Your task to perform on an android device: see sites visited before in the chrome app Image 0: 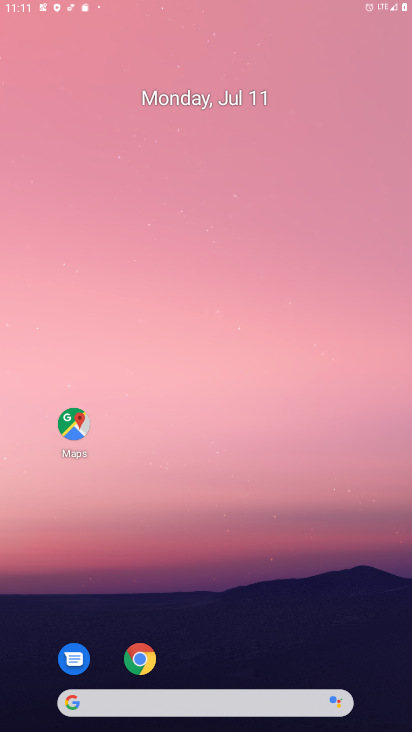
Step 0: drag from (408, 389) to (283, 306)
Your task to perform on an android device: see sites visited before in the chrome app Image 1: 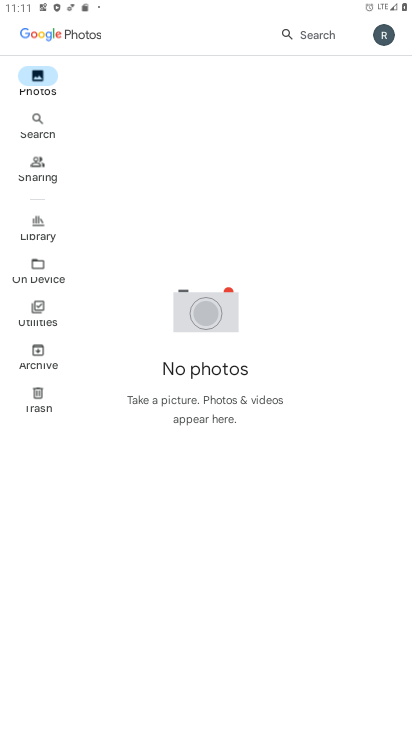
Step 1: drag from (211, 653) to (245, 459)
Your task to perform on an android device: see sites visited before in the chrome app Image 2: 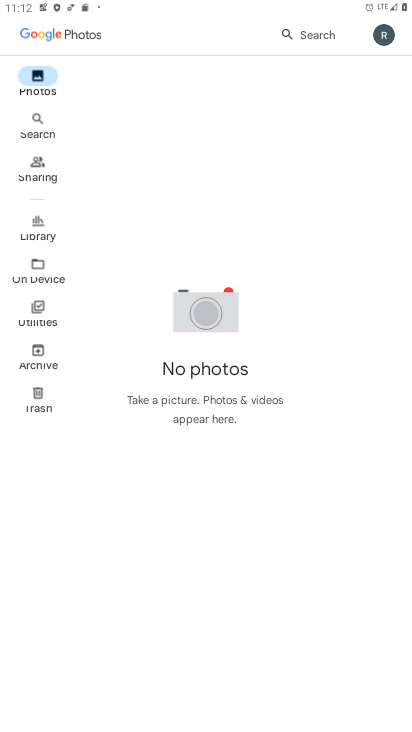
Step 2: drag from (234, 580) to (245, 386)
Your task to perform on an android device: see sites visited before in the chrome app Image 3: 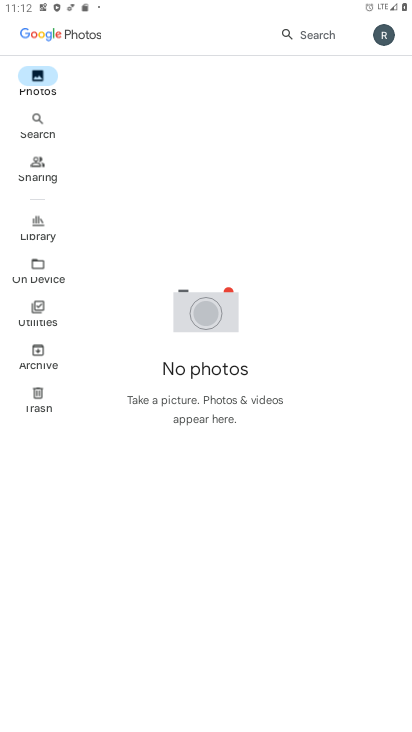
Step 3: press home button
Your task to perform on an android device: see sites visited before in the chrome app Image 4: 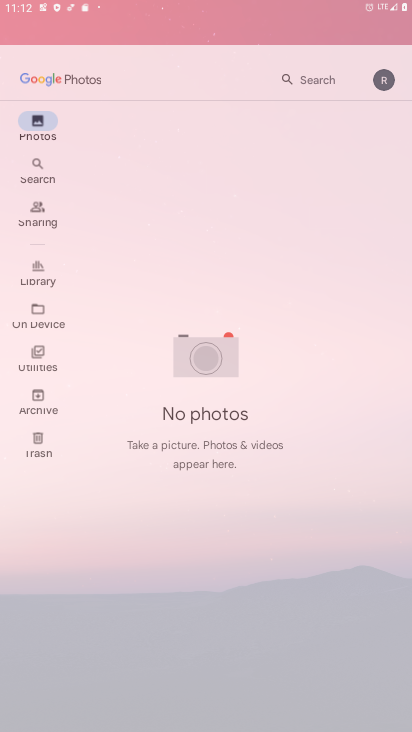
Step 4: drag from (140, 606) to (242, 86)
Your task to perform on an android device: see sites visited before in the chrome app Image 5: 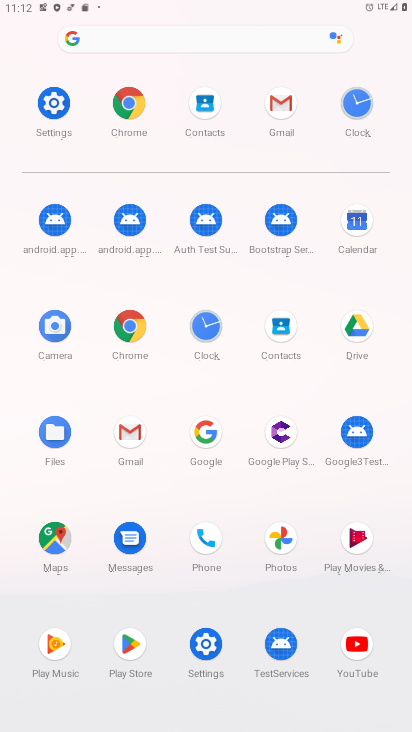
Step 5: click (120, 327)
Your task to perform on an android device: see sites visited before in the chrome app Image 6: 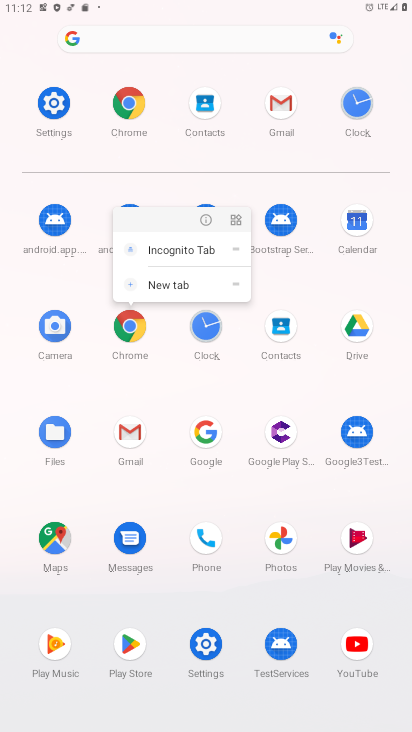
Step 6: click (204, 215)
Your task to perform on an android device: see sites visited before in the chrome app Image 7: 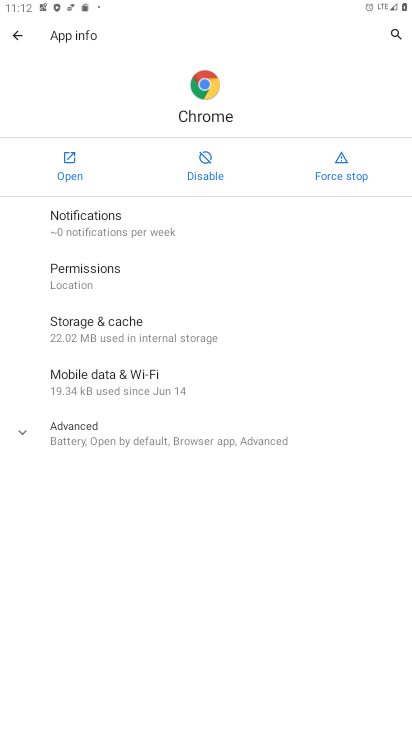
Step 7: click (69, 168)
Your task to perform on an android device: see sites visited before in the chrome app Image 8: 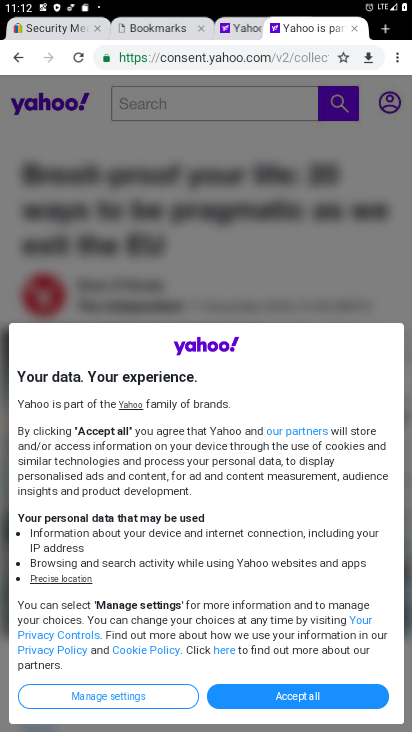
Step 8: drag from (199, 567) to (226, 275)
Your task to perform on an android device: see sites visited before in the chrome app Image 9: 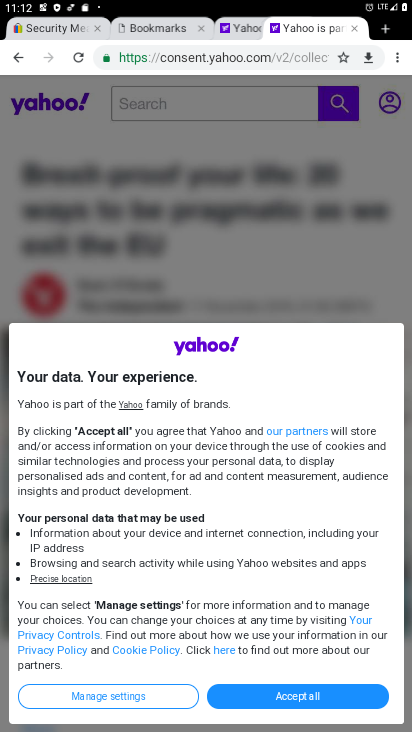
Step 9: drag from (255, 559) to (298, 184)
Your task to perform on an android device: see sites visited before in the chrome app Image 10: 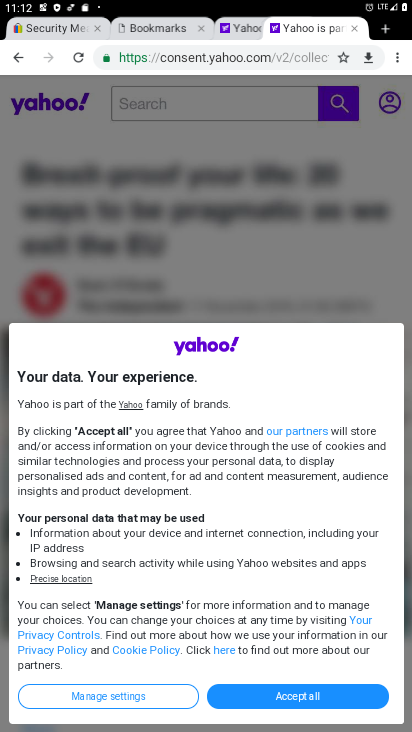
Step 10: click (394, 57)
Your task to perform on an android device: see sites visited before in the chrome app Image 11: 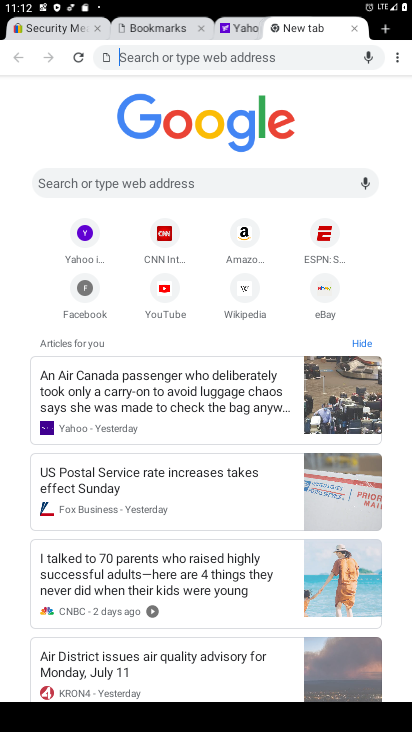
Step 11: click (398, 53)
Your task to perform on an android device: see sites visited before in the chrome app Image 12: 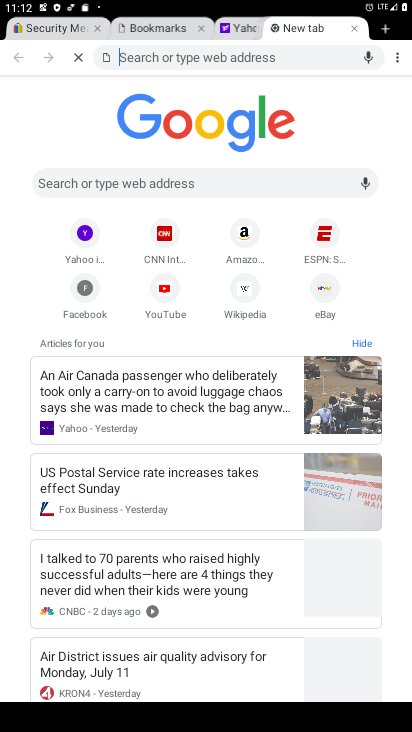
Step 12: click (401, 58)
Your task to perform on an android device: see sites visited before in the chrome app Image 13: 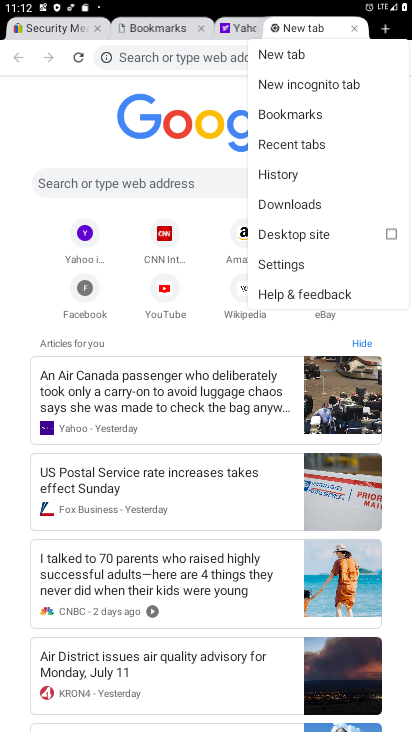
Step 13: click (325, 111)
Your task to perform on an android device: see sites visited before in the chrome app Image 14: 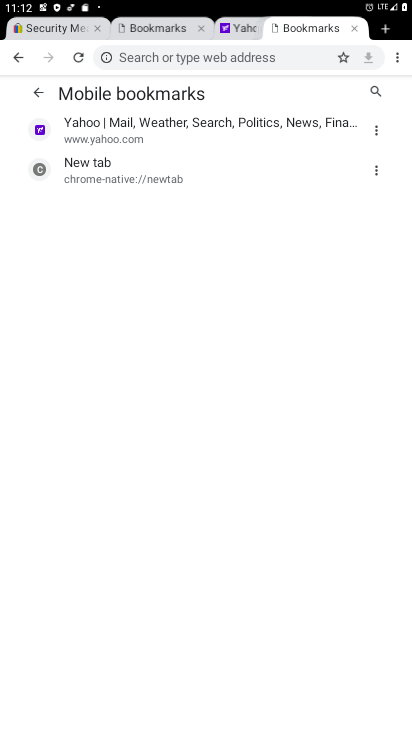
Step 14: drag from (285, 439) to (289, 176)
Your task to perform on an android device: see sites visited before in the chrome app Image 15: 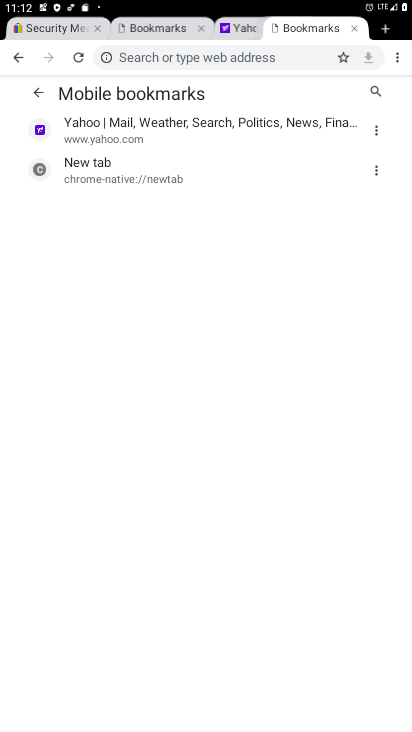
Step 15: click (243, 448)
Your task to perform on an android device: see sites visited before in the chrome app Image 16: 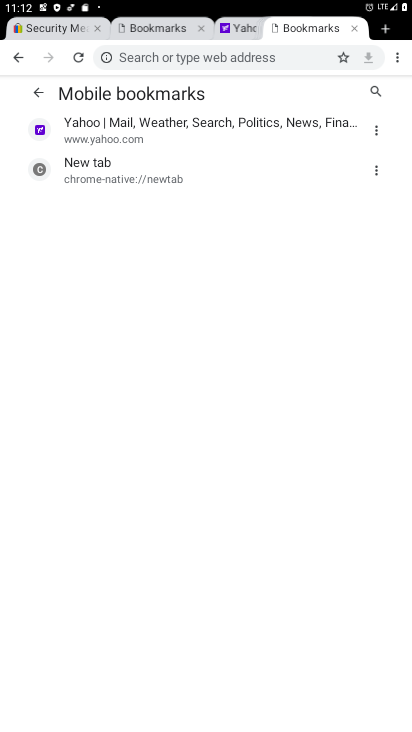
Step 16: task complete